Your task to perform on an android device: Open the map Image 0: 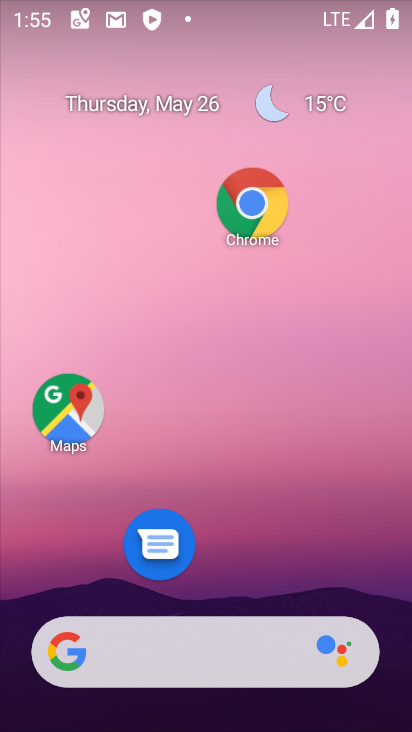
Step 0: click (26, 414)
Your task to perform on an android device: Open the map Image 1: 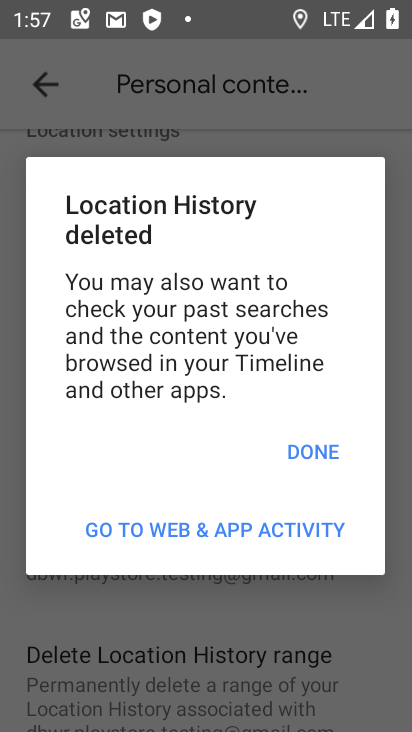
Step 1: click (321, 448)
Your task to perform on an android device: Open the map Image 2: 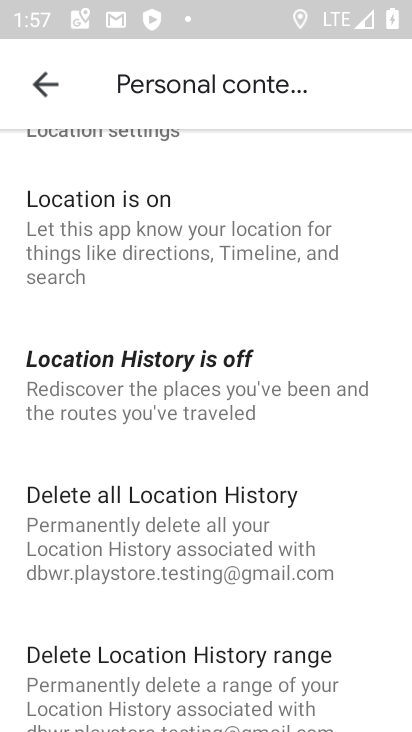
Step 2: click (32, 85)
Your task to perform on an android device: Open the map Image 3: 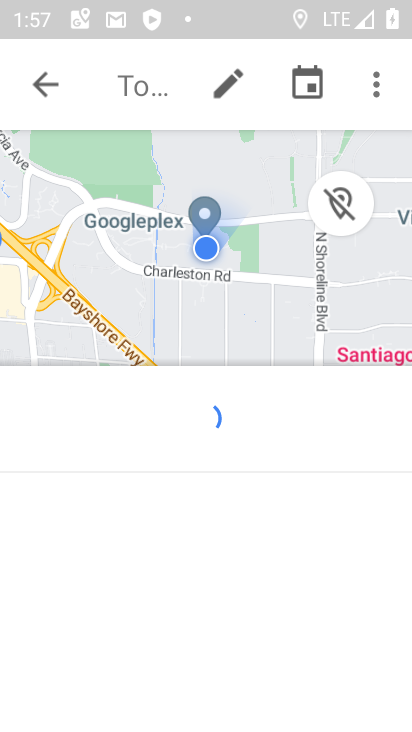
Step 3: click (32, 85)
Your task to perform on an android device: Open the map Image 4: 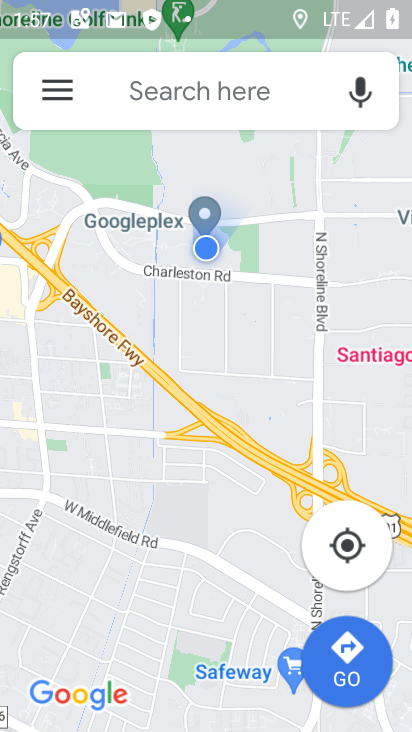
Step 4: task complete